Your task to perform on an android device: all mails in gmail Image 0: 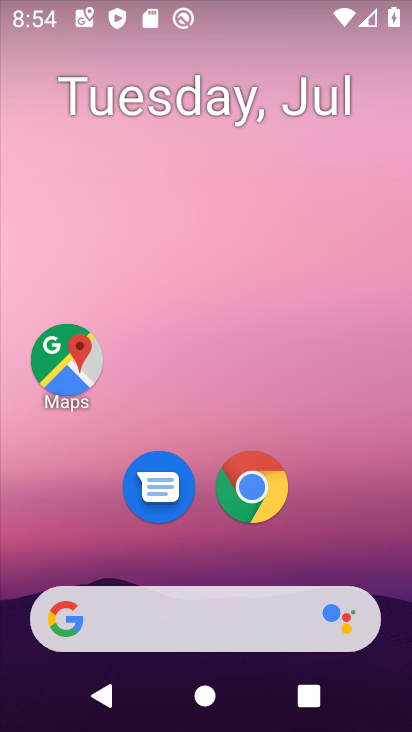
Step 0: drag from (94, 585) to (218, 50)
Your task to perform on an android device: all mails in gmail Image 1: 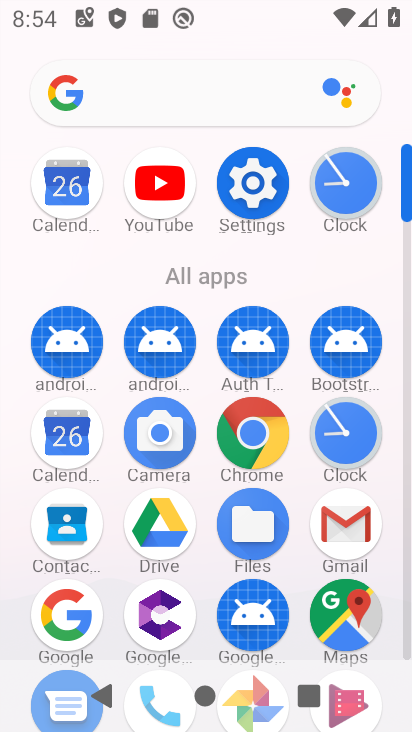
Step 1: click (331, 531)
Your task to perform on an android device: all mails in gmail Image 2: 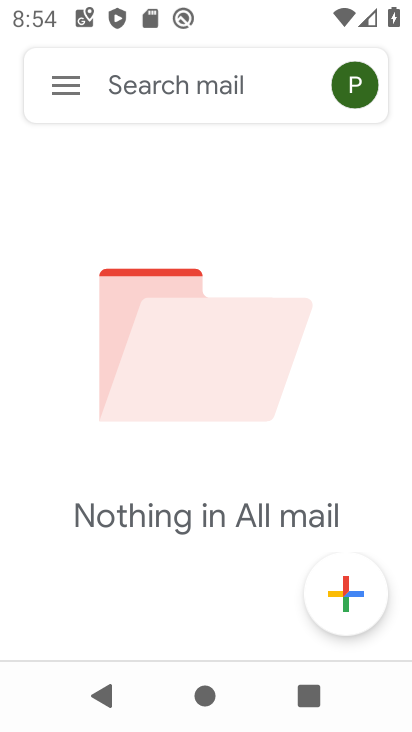
Step 2: task complete